Your task to perform on an android device: Open internet settings Image 0: 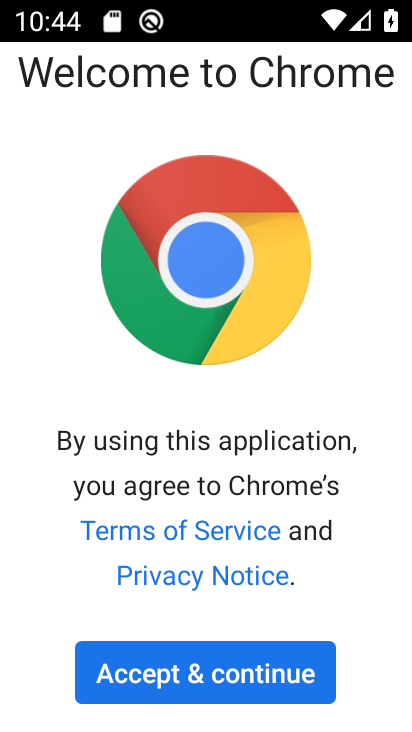
Step 0: press home button
Your task to perform on an android device: Open internet settings Image 1: 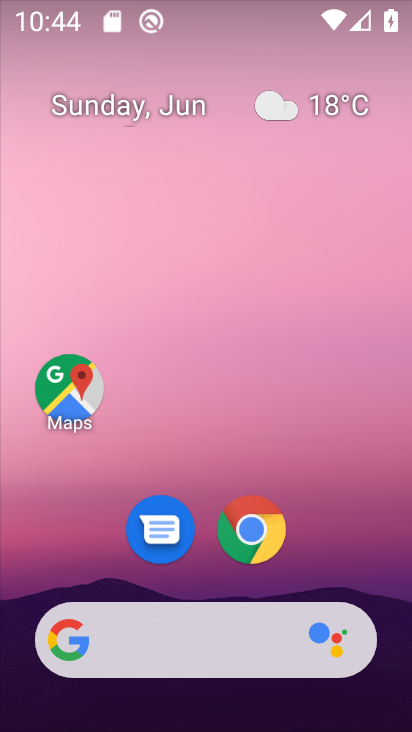
Step 1: drag from (119, 604) to (226, 132)
Your task to perform on an android device: Open internet settings Image 2: 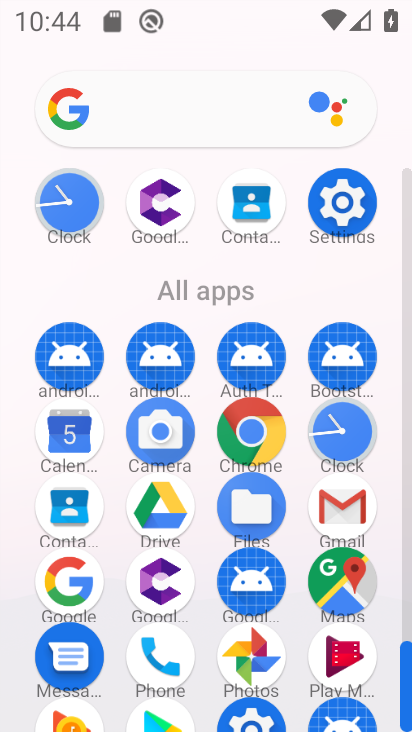
Step 2: drag from (238, 607) to (326, 342)
Your task to perform on an android device: Open internet settings Image 3: 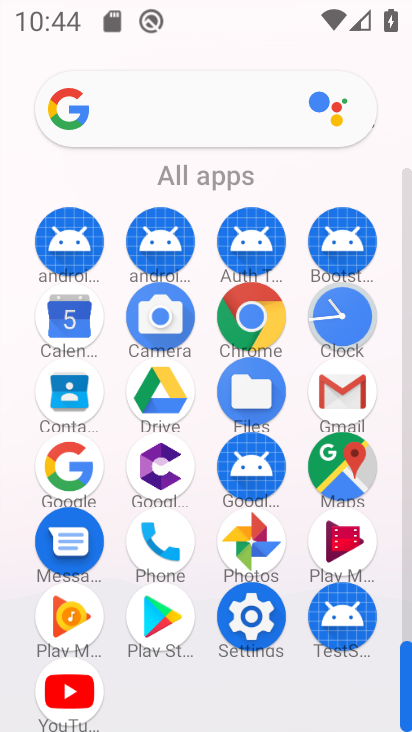
Step 3: click (262, 613)
Your task to perform on an android device: Open internet settings Image 4: 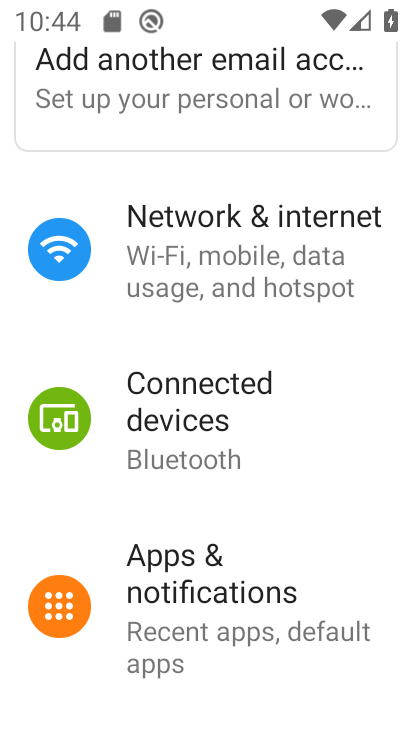
Step 4: click (268, 310)
Your task to perform on an android device: Open internet settings Image 5: 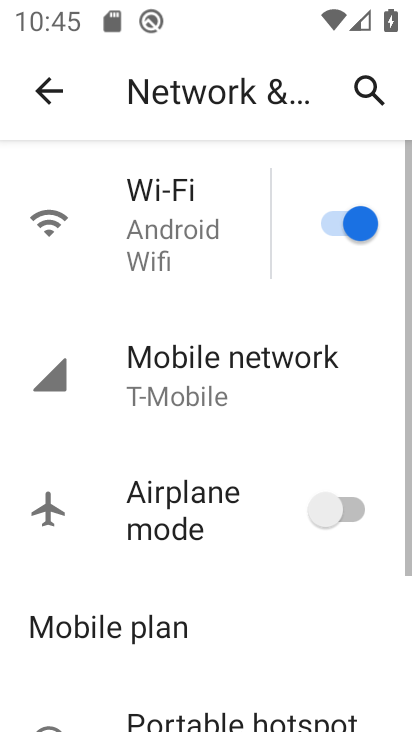
Step 5: click (272, 390)
Your task to perform on an android device: Open internet settings Image 6: 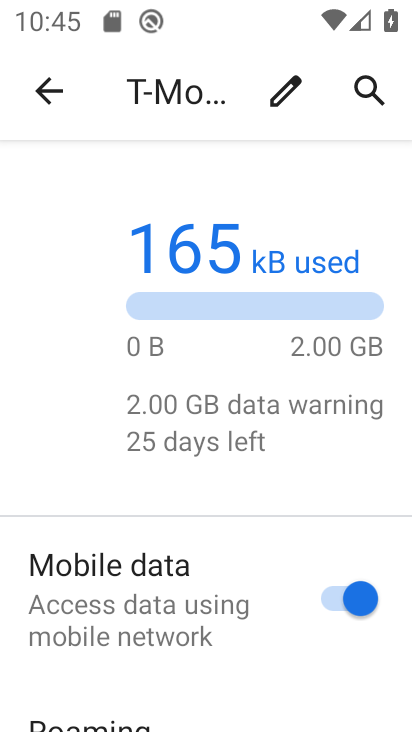
Step 6: task complete